Your task to perform on an android device: all mails in gmail Image 0: 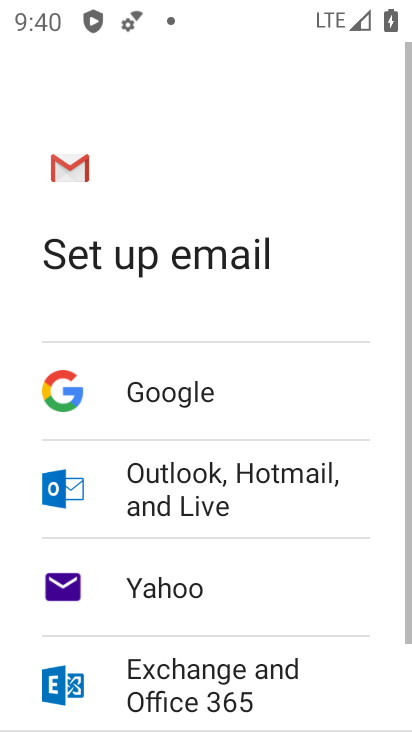
Step 0: press home button
Your task to perform on an android device: all mails in gmail Image 1: 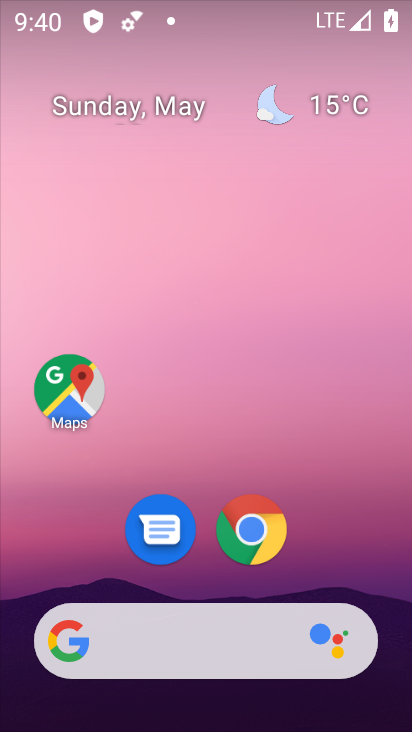
Step 1: drag from (197, 617) to (185, 9)
Your task to perform on an android device: all mails in gmail Image 2: 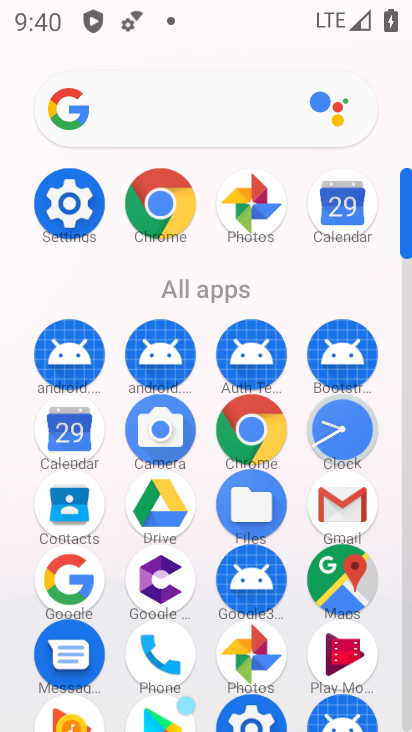
Step 2: click (343, 500)
Your task to perform on an android device: all mails in gmail Image 3: 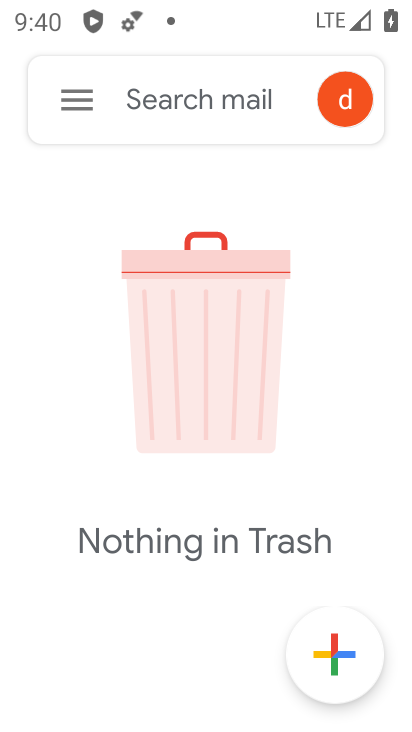
Step 3: click (60, 92)
Your task to perform on an android device: all mails in gmail Image 4: 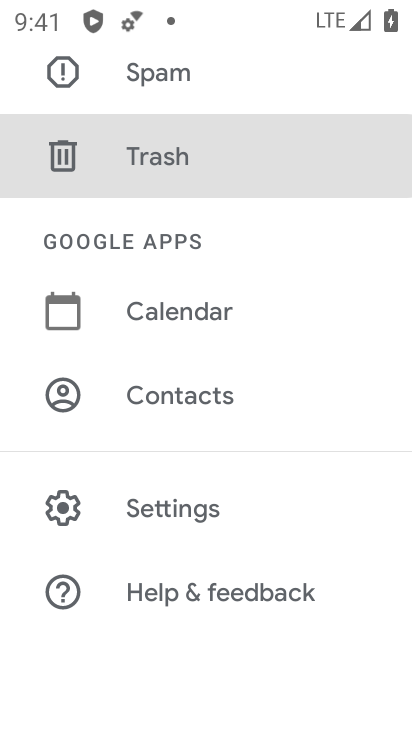
Step 4: drag from (128, 299) to (188, 647)
Your task to perform on an android device: all mails in gmail Image 5: 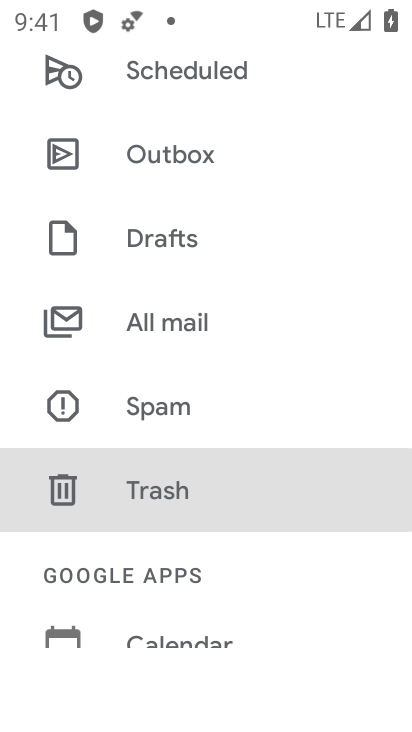
Step 5: drag from (137, 190) to (166, 447)
Your task to perform on an android device: all mails in gmail Image 6: 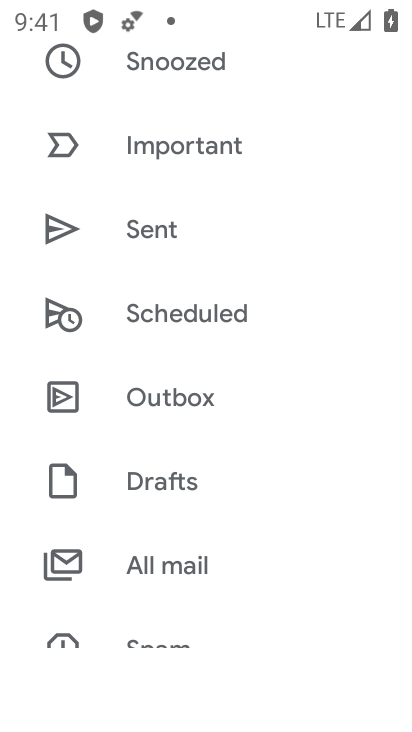
Step 6: click (164, 558)
Your task to perform on an android device: all mails in gmail Image 7: 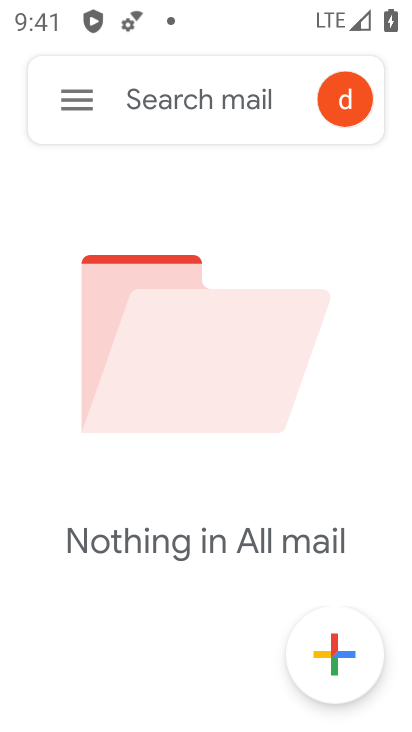
Step 7: task complete